Your task to perform on an android device: change the clock display to analog Image 0: 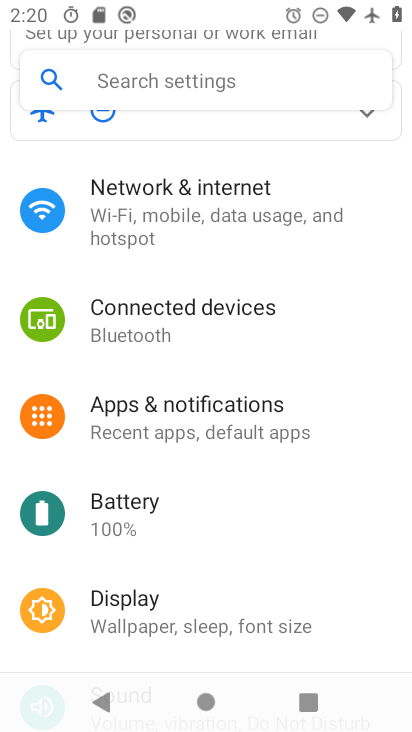
Step 0: press home button
Your task to perform on an android device: change the clock display to analog Image 1: 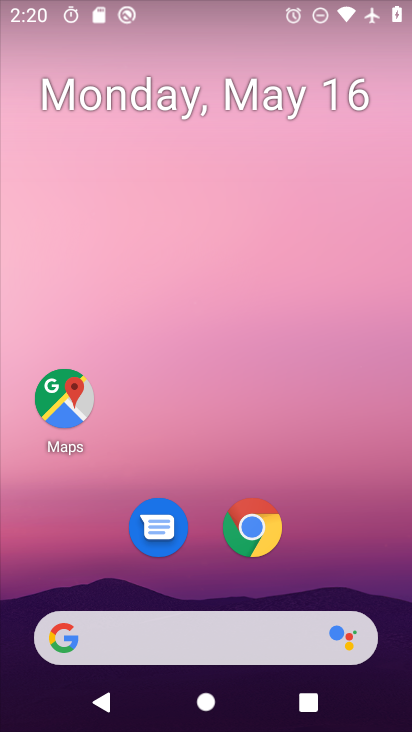
Step 1: drag from (164, 649) to (324, 175)
Your task to perform on an android device: change the clock display to analog Image 2: 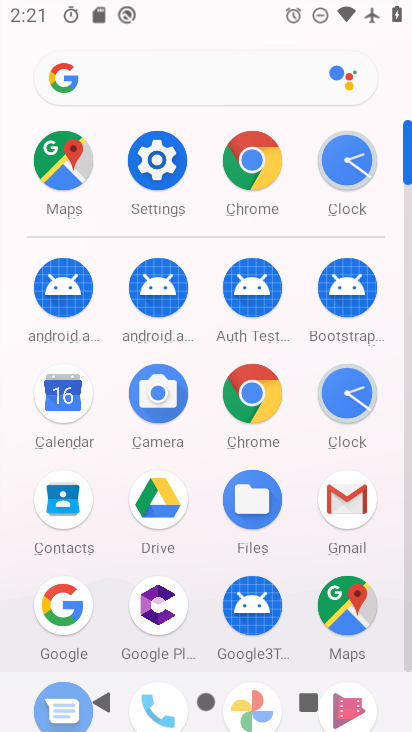
Step 2: click (345, 406)
Your task to perform on an android device: change the clock display to analog Image 3: 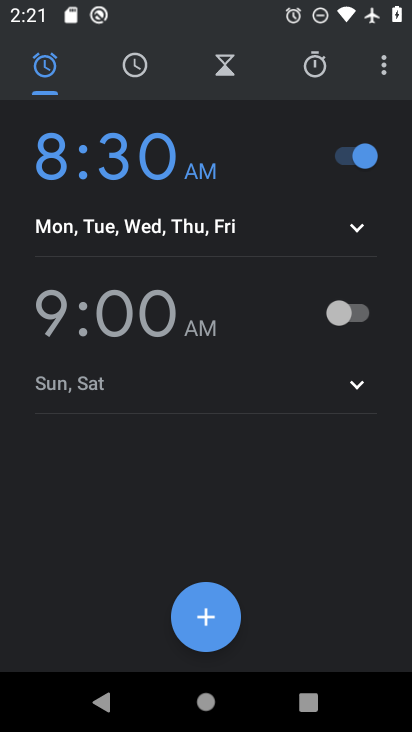
Step 3: click (385, 72)
Your task to perform on an android device: change the clock display to analog Image 4: 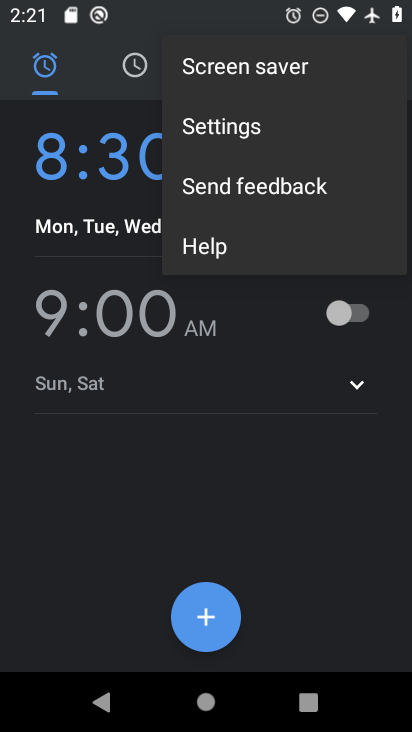
Step 4: click (212, 130)
Your task to perform on an android device: change the clock display to analog Image 5: 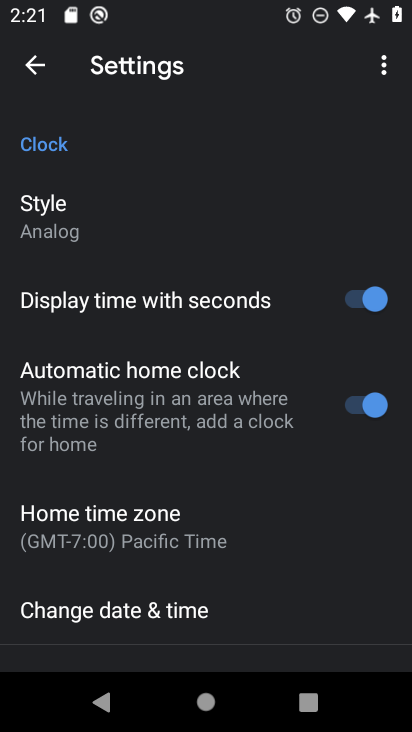
Step 5: task complete